Your task to perform on an android device: What's the weather today? Image 0: 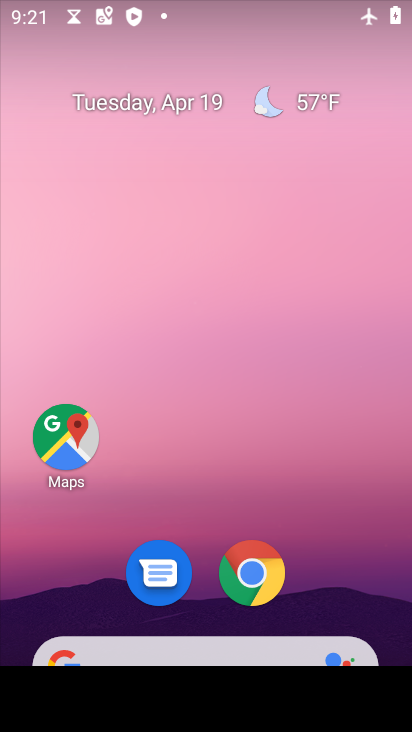
Step 0: click (326, 100)
Your task to perform on an android device: What's the weather today? Image 1: 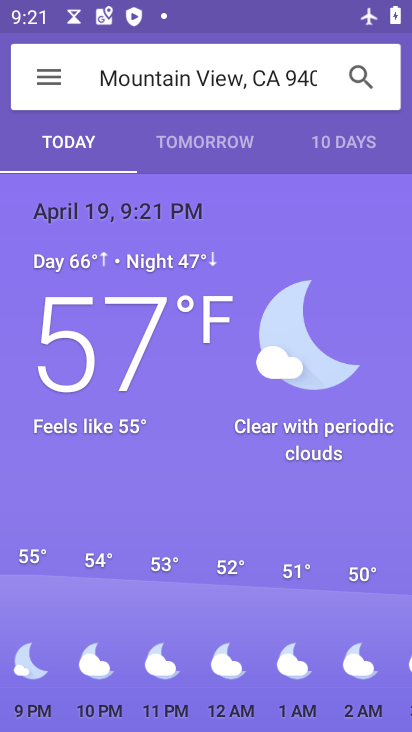
Step 1: task complete